Your task to perform on an android device: delete the emails in spam in the gmail app Image 0: 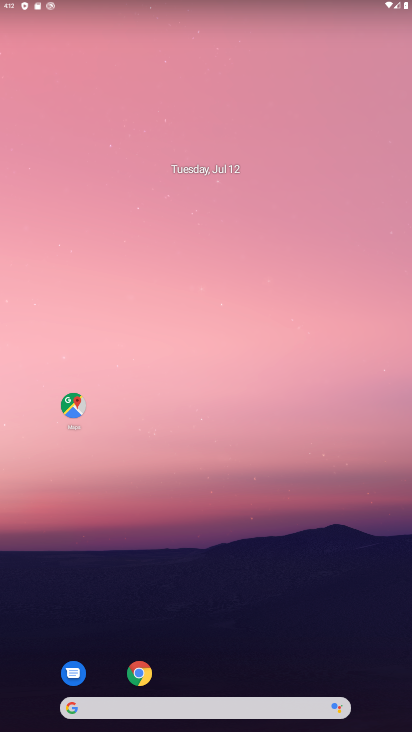
Step 0: drag from (234, 647) to (284, 87)
Your task to perform on an android device: delete the emails in spam in the gmail app Image 1: 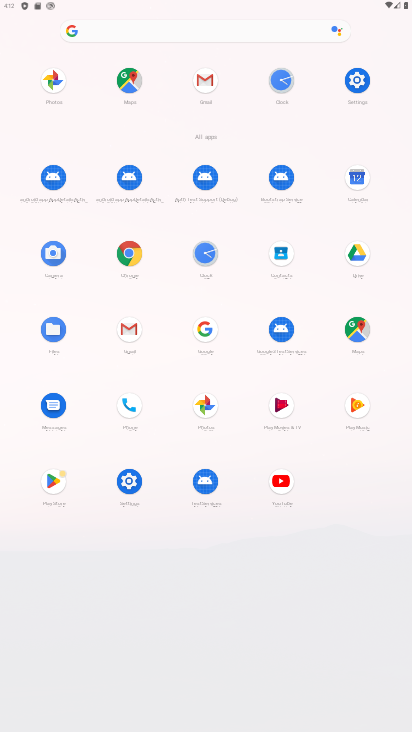
Step 1: click (173, 63)
Your task to perform on an android device: delete the emails in spam in the gmail app Image 2: 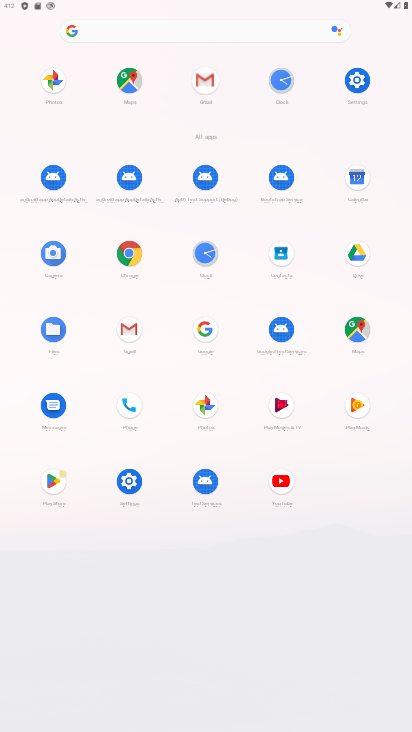
Step 2: click (192, 82)
Your task to perform on an android device: delete the emails in spam in the gmail app Image 3: 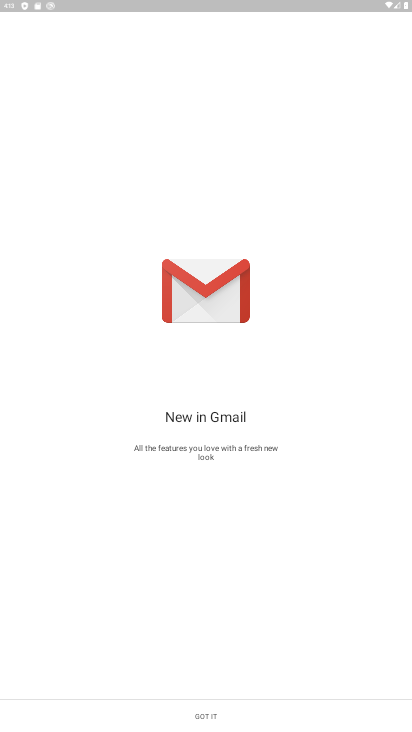
Step 3: click (199, 709)
Your task to perform on an android device: delete the emails in spam in the gmail app Image 4: 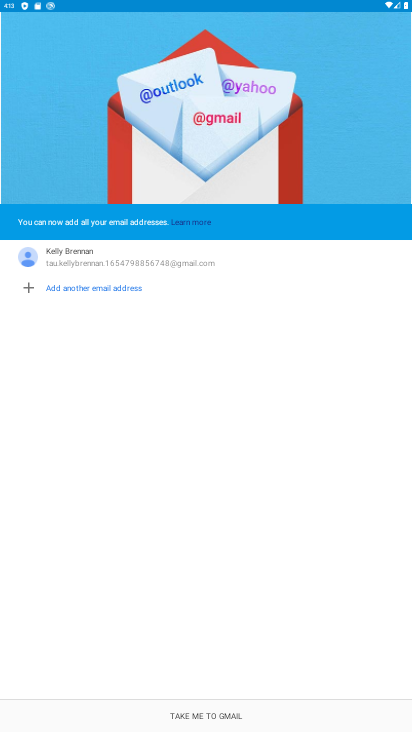
Step 4: click (202, 710)
Your task to perform on an android device: delete the emails in spam in the gmail app Image 5: 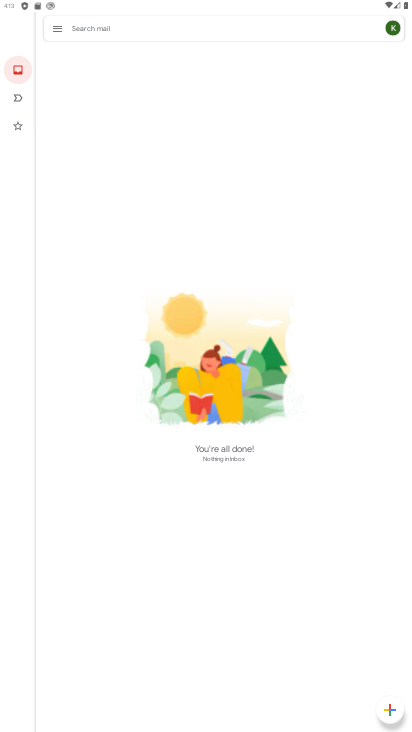
Step 5: task complete